Your task to perform on an android device: find snoozed emails in the gmail app Image 0: 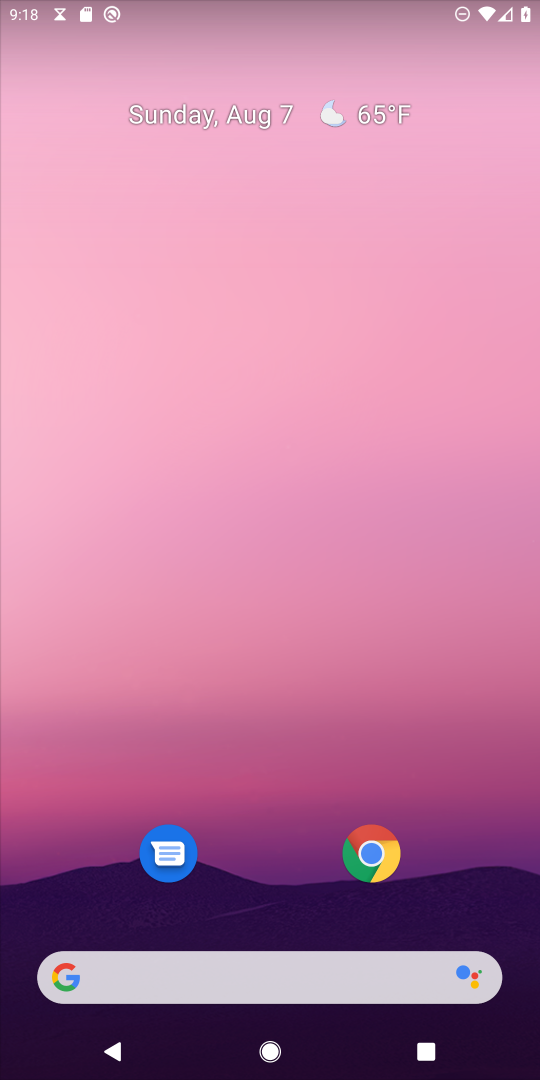
Step 0: drag from (258, 773) to (254, 570)
Your task to perform on an android device: find snoozed emails in the gmail app Image 1: 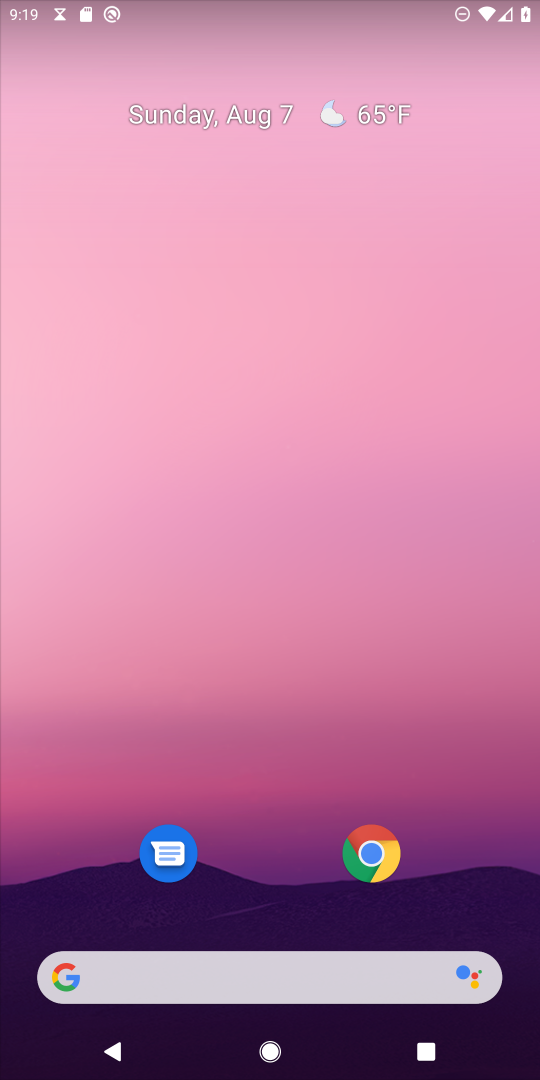
Step 1: drag from (196, 936) to (290, 171)
Your task to perform on an android device: find snoozed emails in the gmail app Image 2: 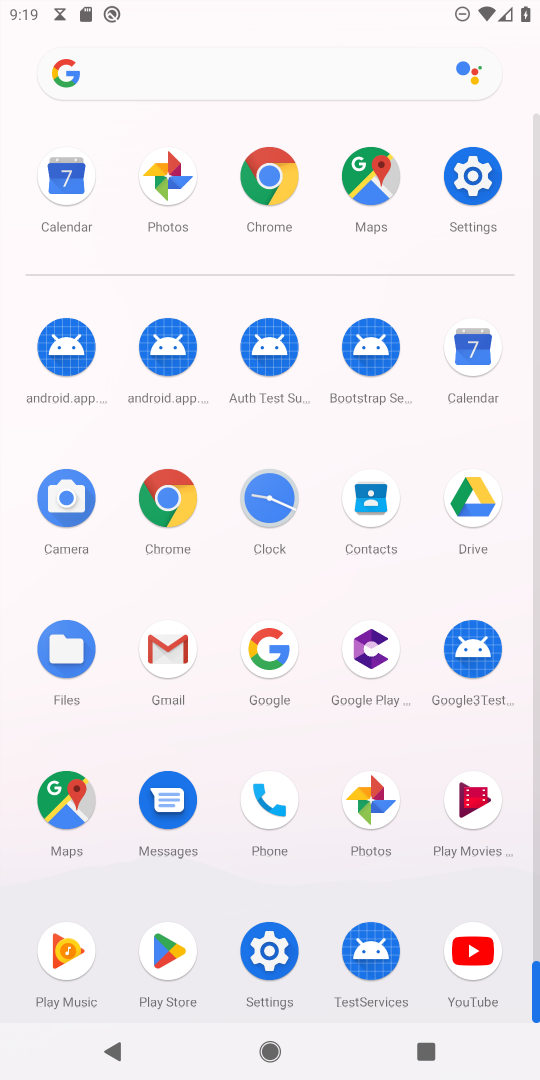
Step 2: click (166, 641)
Your task to perform on an android device: find snoozed emails in the gmail app Image 3: 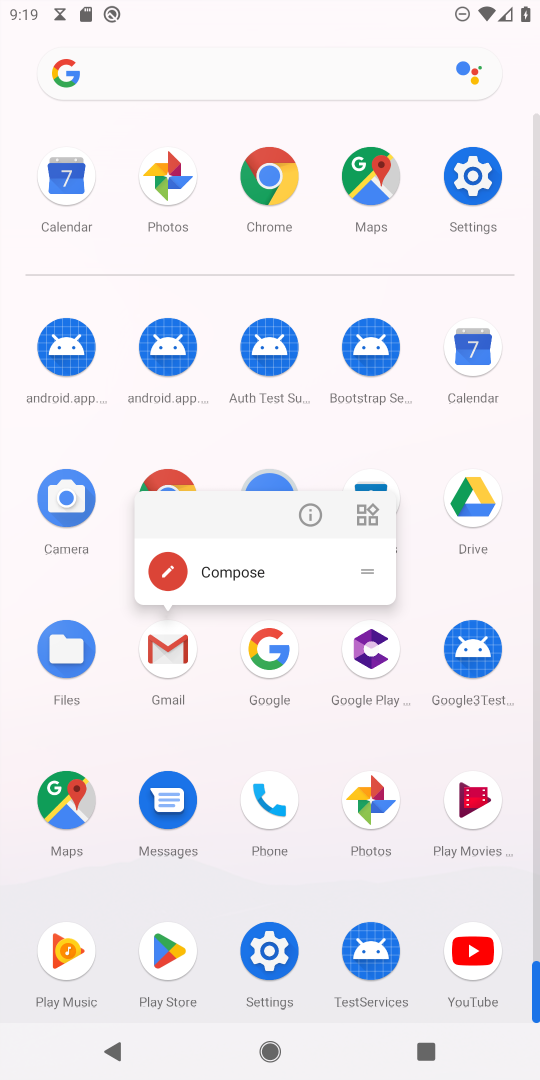
Step 3: click (158, 668)
Your task to perform on an android device: find snoozed emails in the gmail app Image 4: 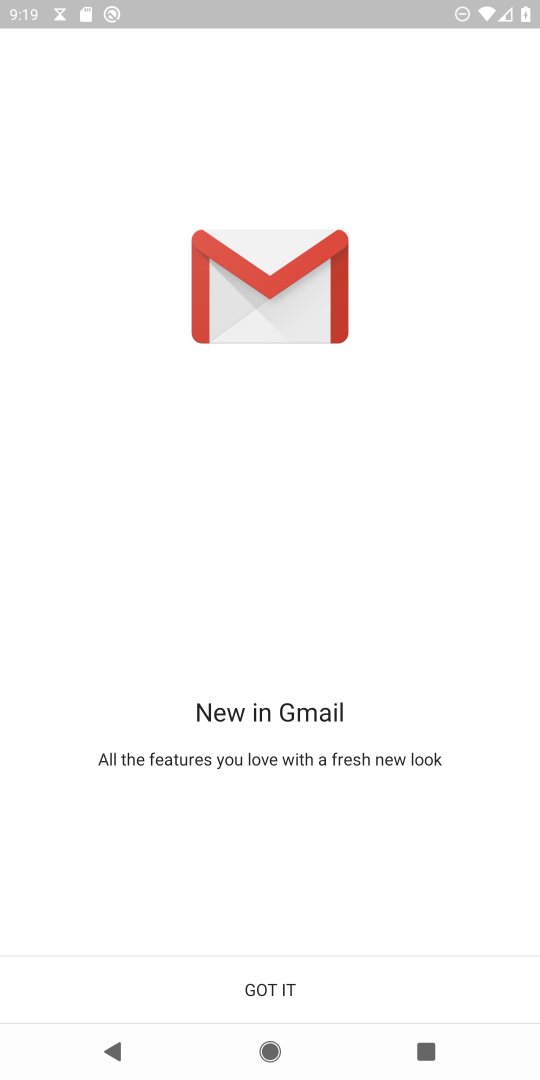
Step 4: click (282, 981)
Your task to perform on an android device: find snoozed emails in the gmail app Image 5: 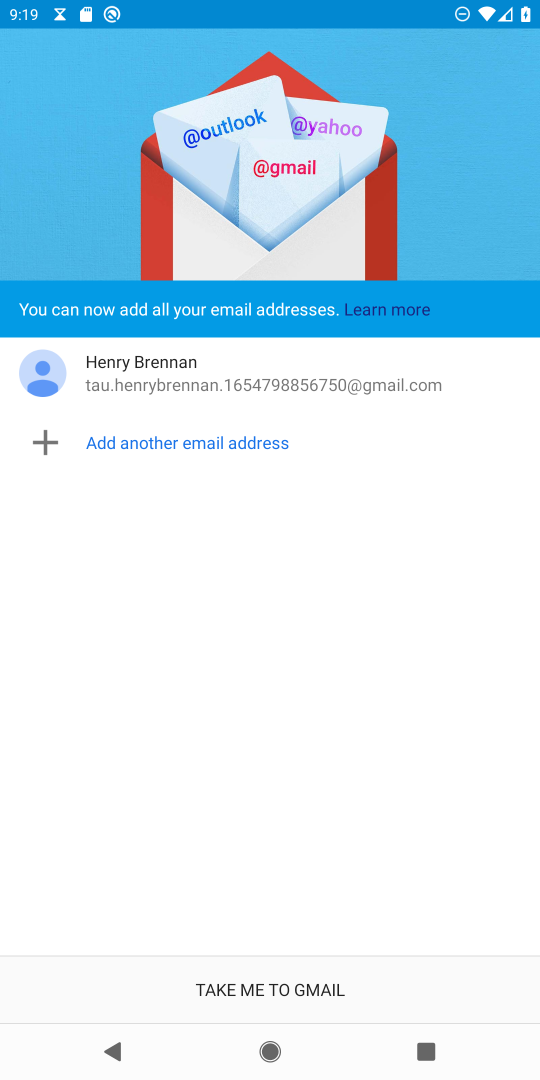
Step 5: click (282, 981)
Your task to perform on an android device: find snoozed emails in the gmail app Image 6: 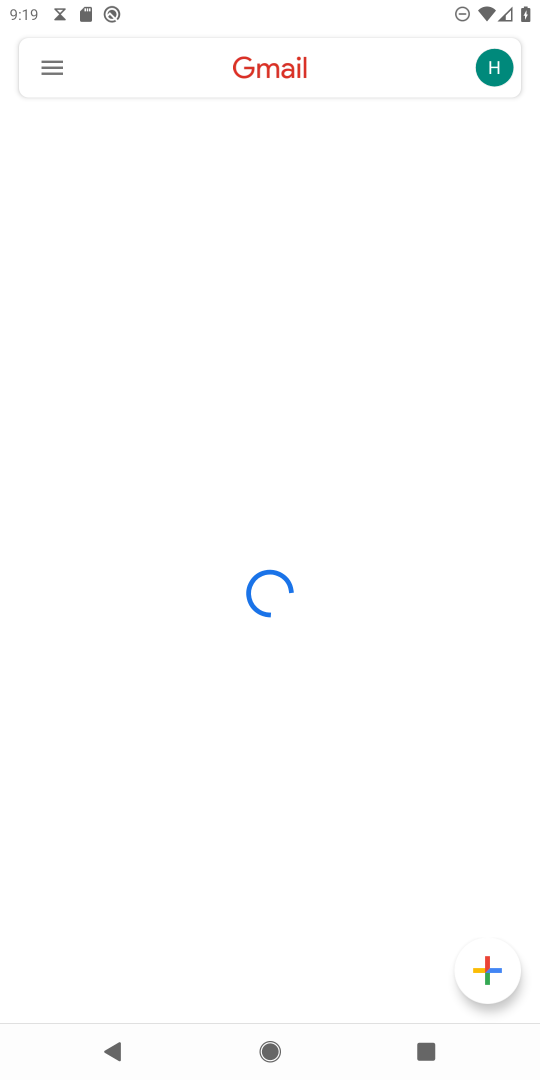
Step 6: click (40, 52)
Your task to perform on an android device: find snoozed emails in the gmail app Image 7: 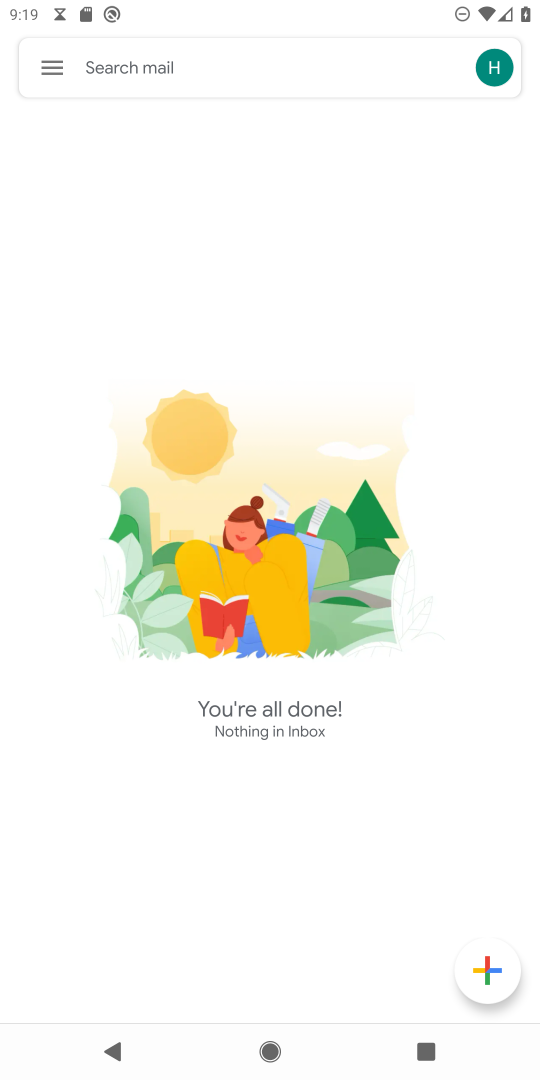
Step 7: click (43, 72)
Your task to perform on an android device: find snoozed emails in the gmail app Image 8: 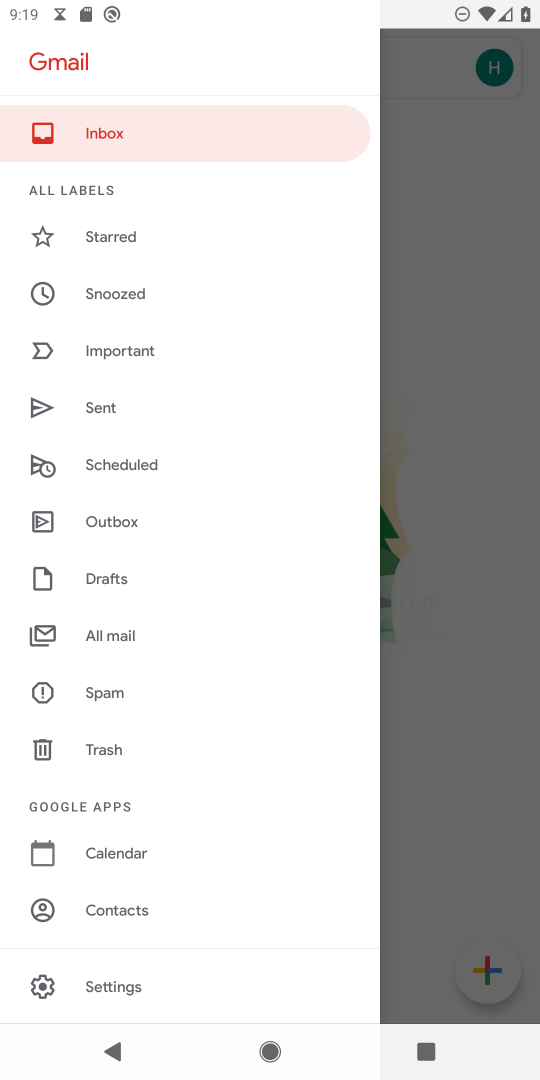
Step 8: click (117, 297)
Your task to perform on an android device: find snoozed emails in the gmail app Image 9: 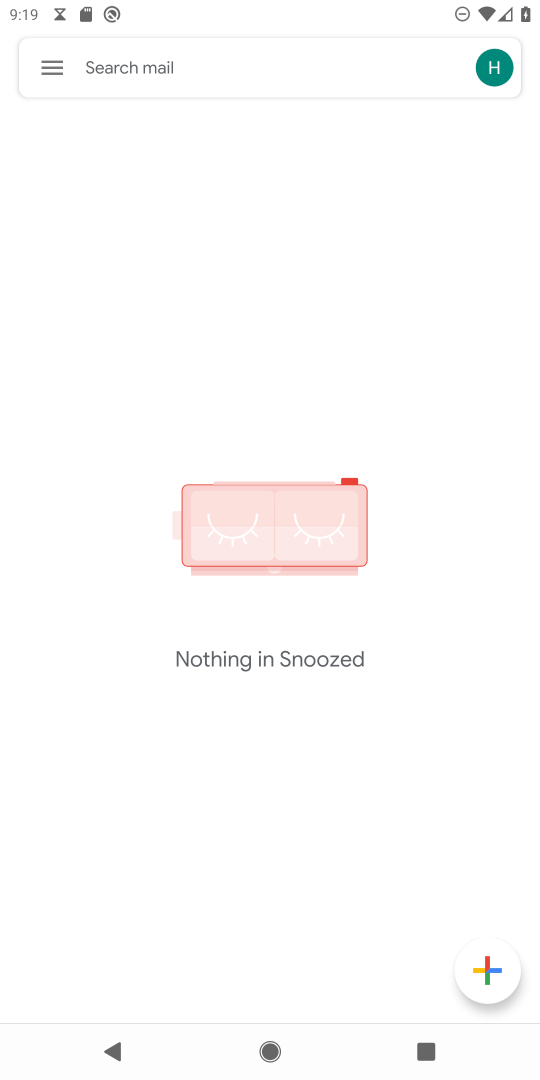
Step 9: task complete